Your task to perform on an android device: turn off improve location accuracy Image 0: 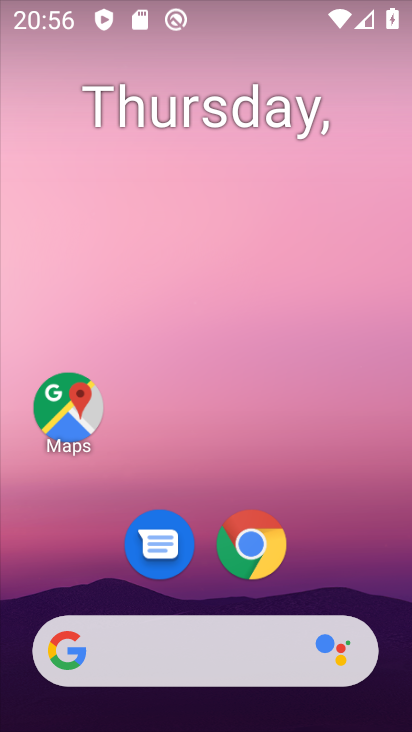
Step 0: drag from (195, 715) to (229, 61)
Your task to perform on an android device: turn off improve location accuracy Image 1: 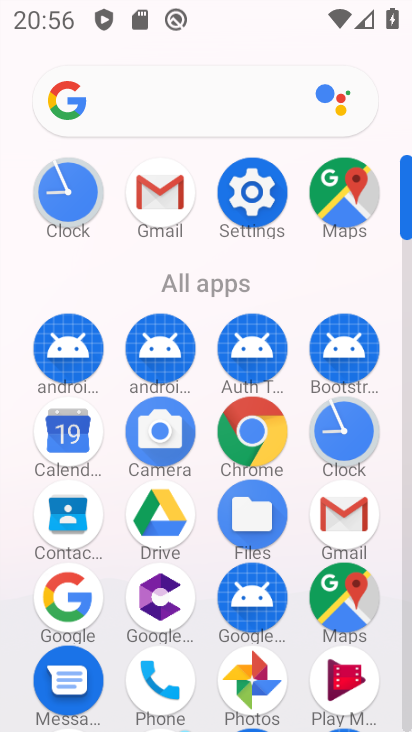
Step 1: click (356, 195)
Your task to perform on an android device: turn off improve location accuracy Image 2: 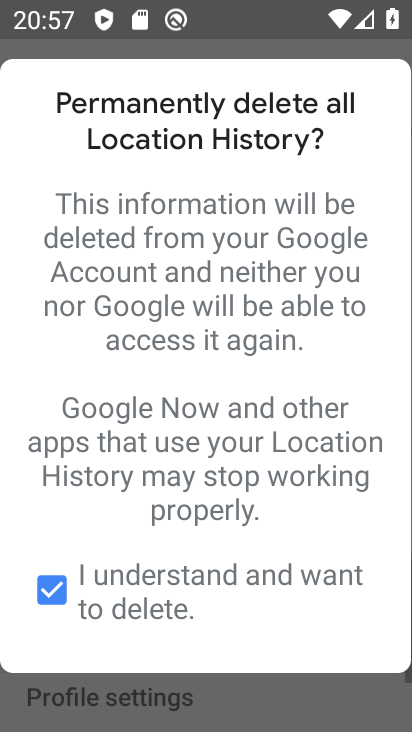
Step 2: press back button
Your task to perform on an android device: turn off improve location accuracy Image 3: 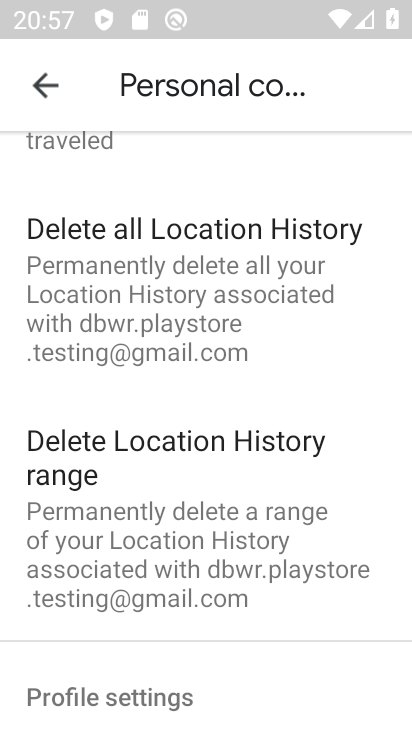
Step 3: drag from (270, 616) to (276, 329)
Your task to perform on an android device: turn off improve location accuracy Image 4: 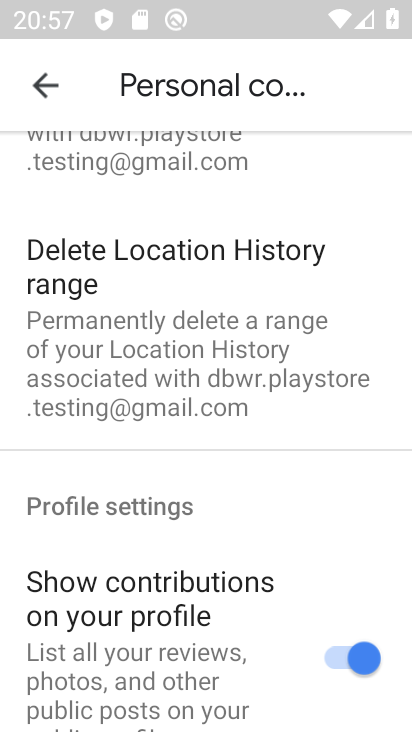
Step 4: drag from (321, 349) to (168, 701)
Your task to perform on an android device: turn off improve location accuracy Image 5: 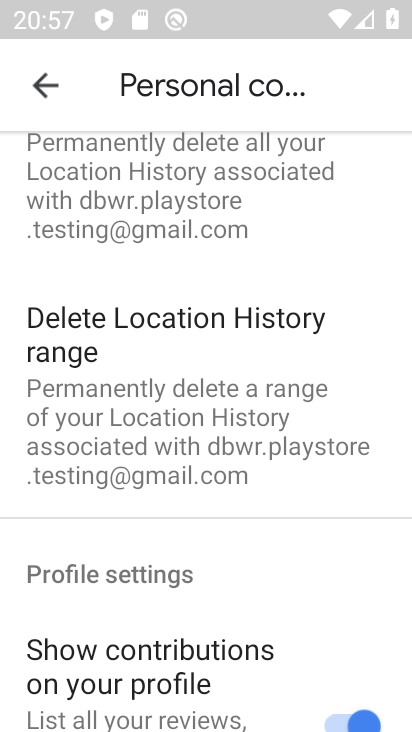
Step 5: drag from (304, 248) to (256, 555)
Your task to perform on an android device: turn off improve location accuracy Image 6: 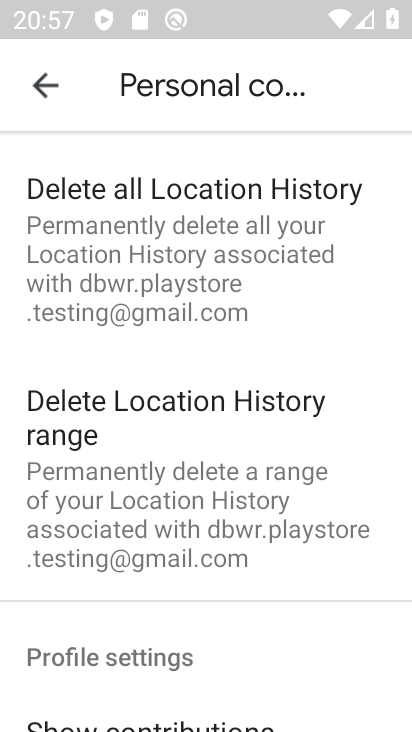
Step 6: drag from (248, 251) to (223, 660)
Your task to perform on an android device: turn off improve location accuracy Image 7: 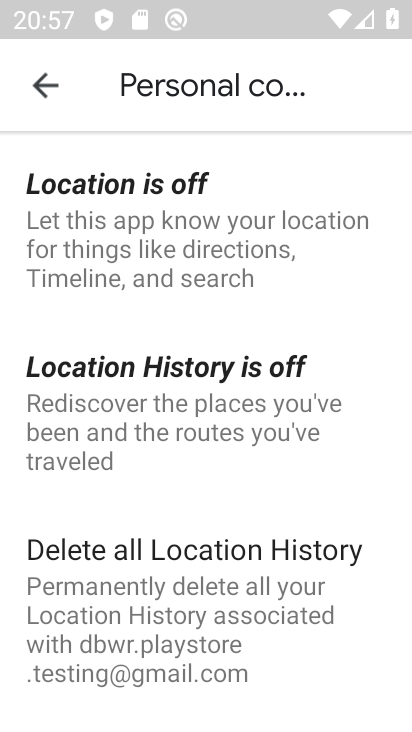
Step 7: click (46, 92)
Your task to perform on an android device: turn off improve location accuracy Image 8: 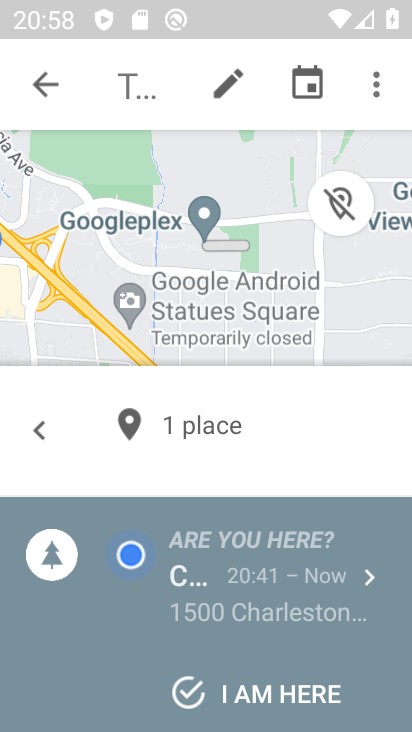
Step 8: click (38, 80)
Your task to perform on an android device: turn off improve location accuracy Image 9: 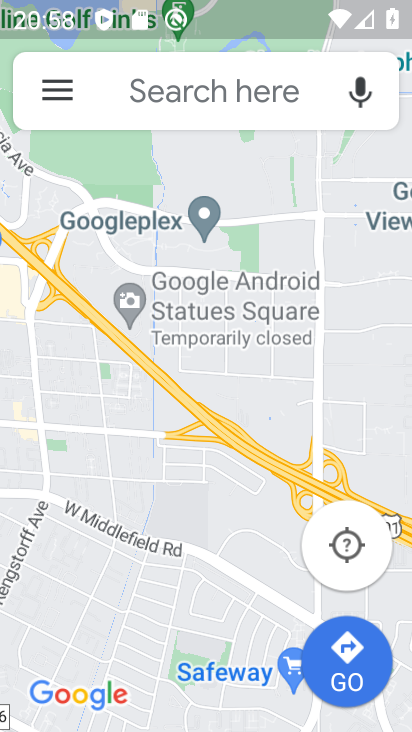
Step 9: click (51, 78)
Your task to perform on an android device: turn off improve location accuracy Image 10: 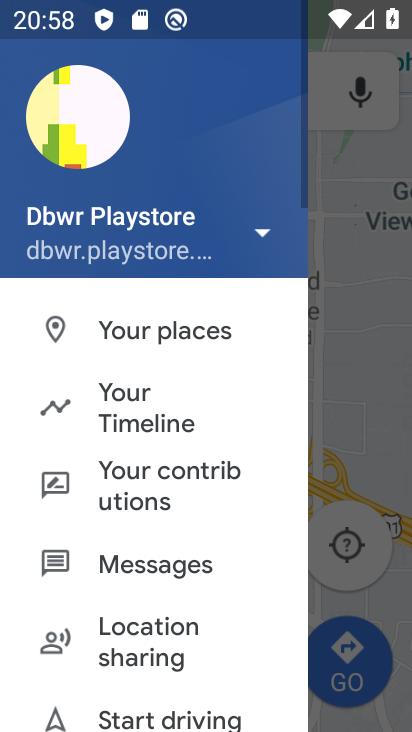
Step 10: drag from (136, 669) to (215, 9)
Your task to perform on an android device: turn off improve location accuracy Image 11: 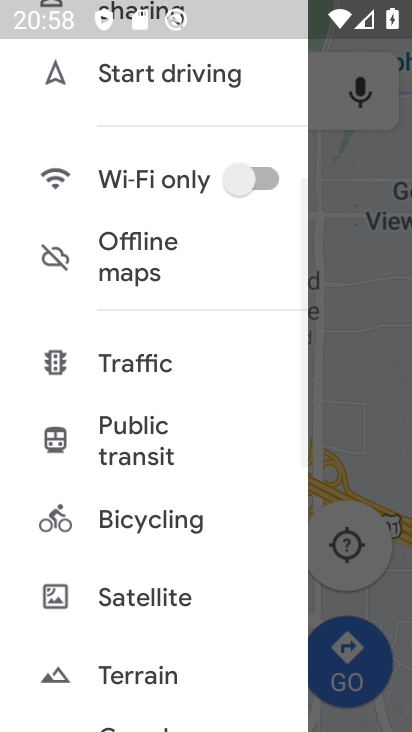
Step 11: click (208, 206)
Your task to perform on an android device: turn off improve location accuracy Image 12: 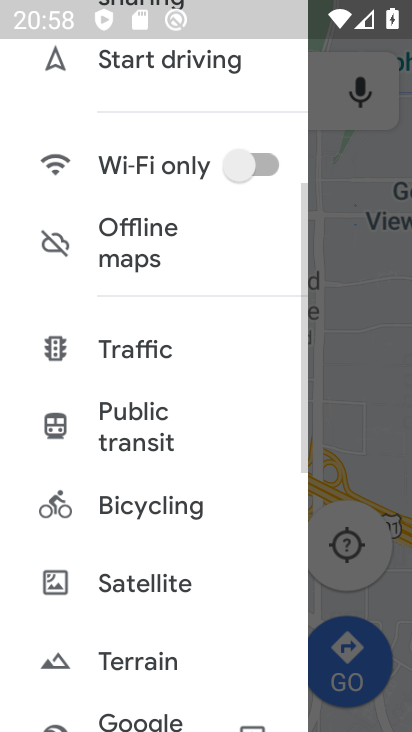
Step 12: drag from (153, 525) to (130, 130)
Your task to perform on an android device: turn off improve location accuracy Image 13: 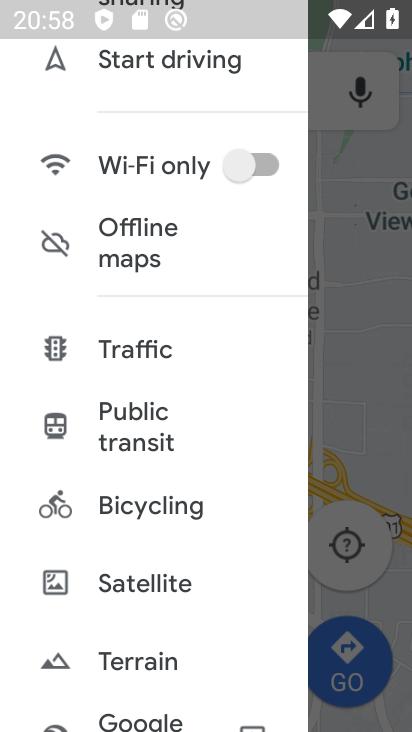
Step 13: drag from (138, 591) to (226, 140)
Your task to perform on an android device: turn off improve location accuracy Image 14: 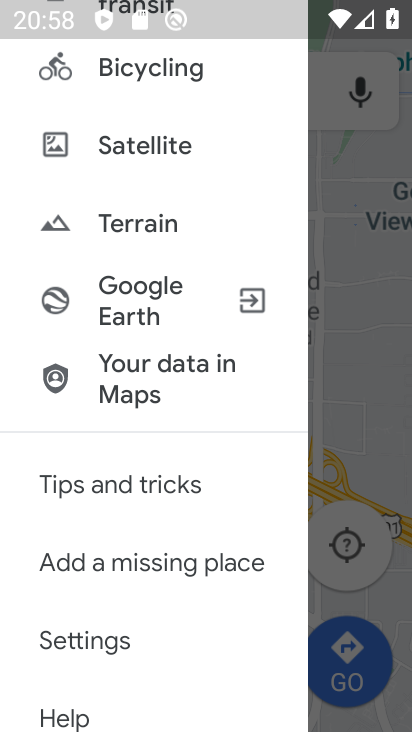
Step 14: click (89, 653)
Your task to perform on an android device: turn off improve location accuracy Image 15: 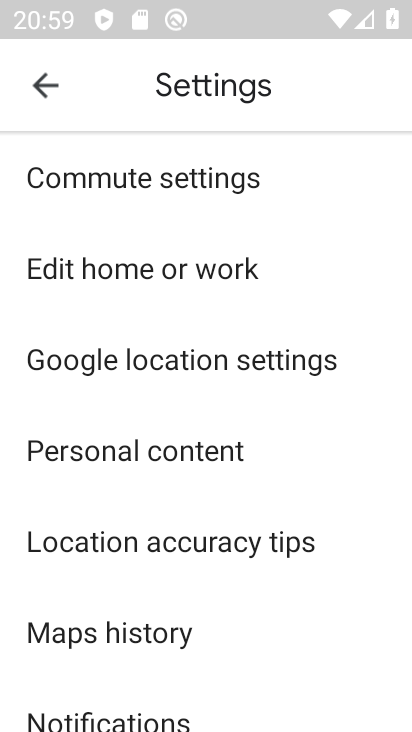
Step 15: click (304, 351)
Your task to perform on an android device: turn off improve location accuracy Image 16: 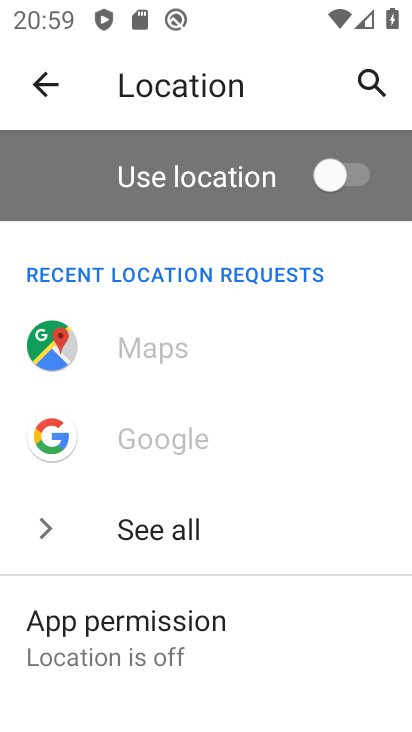
Step 16: drag from (222, 655) to (221, 27)
Your task to perform on an android device: turn off improve location accuracy Image 17: 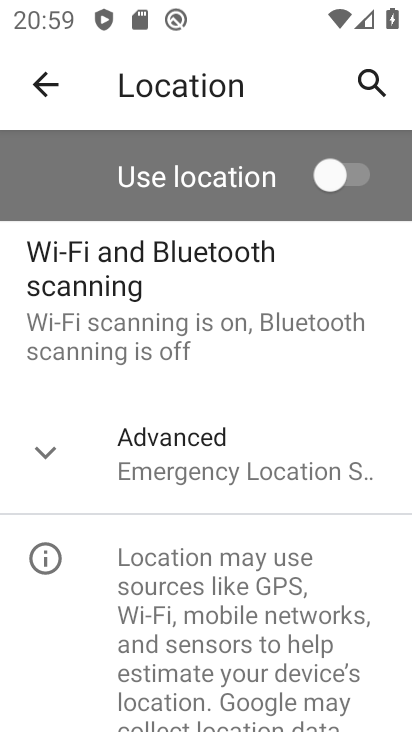
Step 17: click (289, 447)
Your task to perform on an android device: turn off improve location accuracy Image 18: 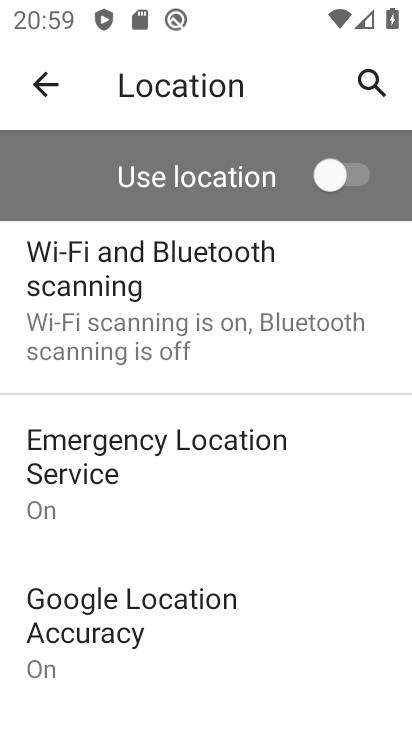
Step 18: drag from (228, 656) to (306, 229)
Your task to perform on an android device: turn off improve location accuracy Image 19: 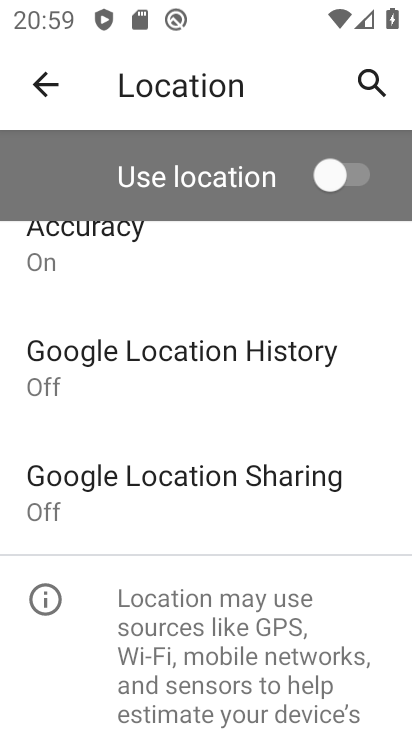
Step 19: click (78, 248)
Your task to perform on an android device: turn off improve location accuracy Image 20: 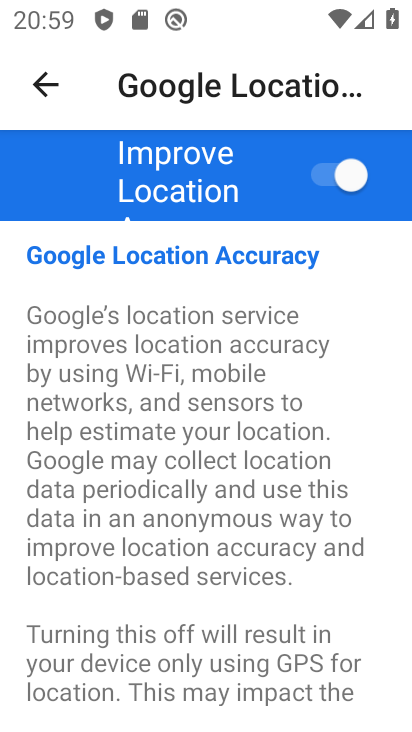
Step 20: click (351, 177)
Your task to perform on an android device: turn off improve location accuracy Image 21: 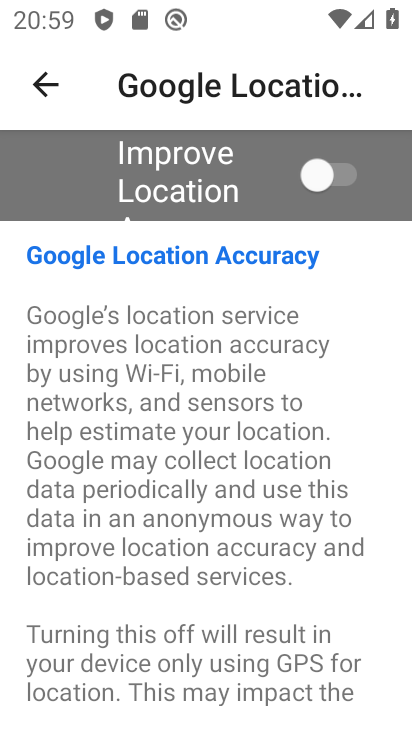
Step 21: task complete